Your task to perform on an android device: Open Reddit.com Image 0: 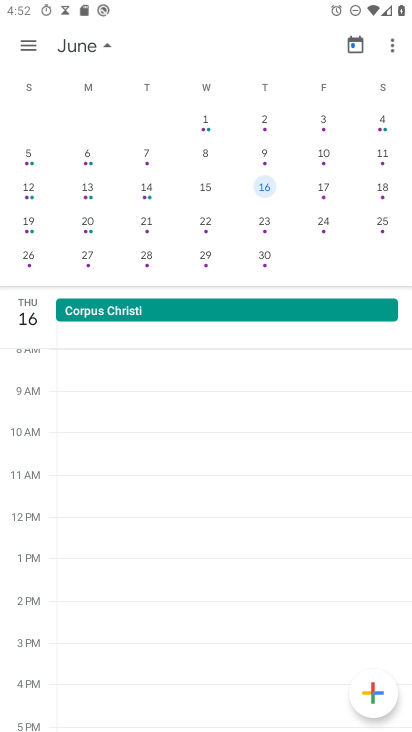
Step 0: press home button
Your task to perform on an android device: Open Reddit.com Image 1: 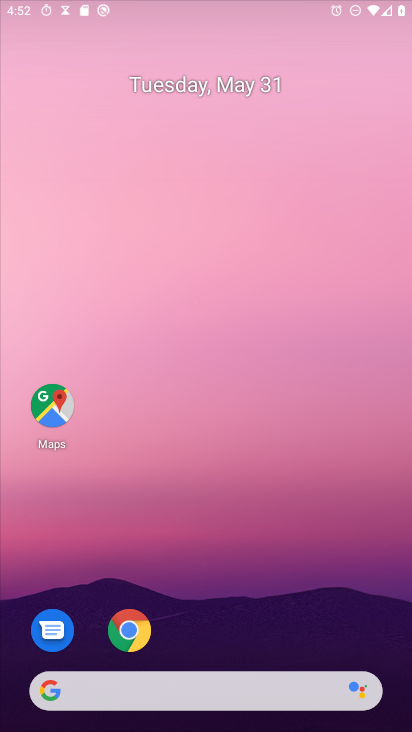
Step 1: drag from (242, 656) to (295, 21)
Your task to perform on an android device: Open Reddit.com Image 2: 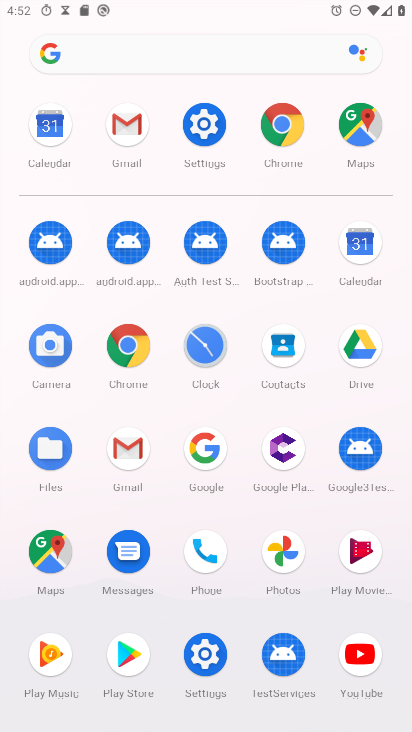
Step 2: click (110, 343)
Your task to perform on an android device: Open Reddit.com Image 3: 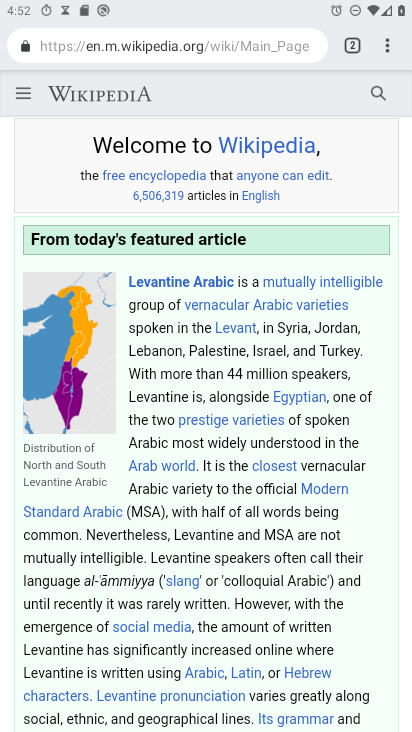
Step 3: click (244, 41)
Your task to perform on an android device: Open Reddit.com Image 4: 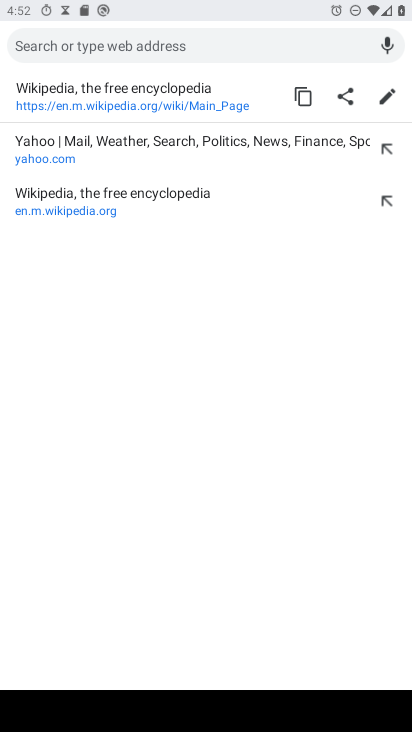
Step 4: type "reddit.com"
Your task to perform on an android device: Open Reddit.com Image 5: 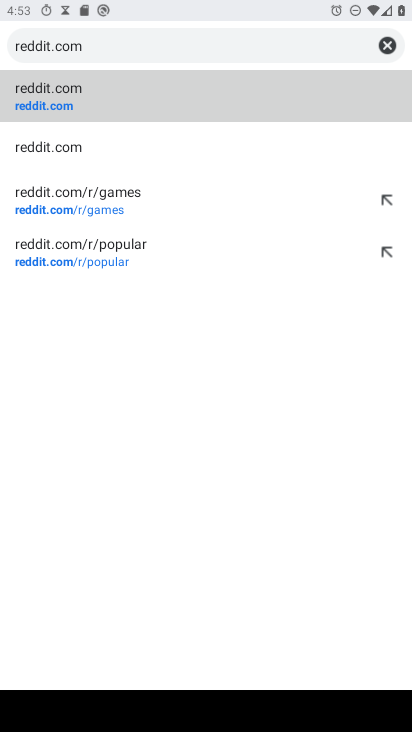
Step 5: click (43, 111)
Your task to perform on an android device: Open Reddit.com Image 6: 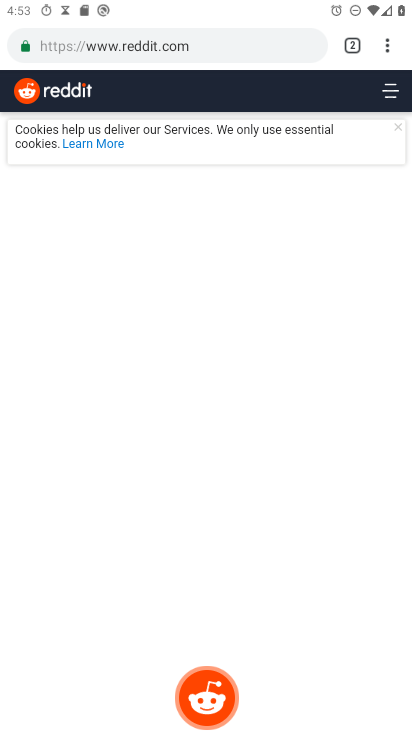
Step 6: task complete